Your task to perform on an android device: turn pop-ups off in chrome Image 0: 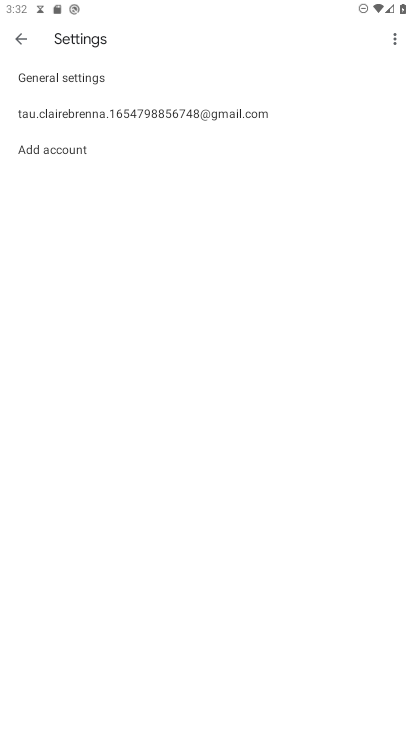
Step 0: press home button
Your task to perform on an android device: turn pop-ups off in chrome Image 1: 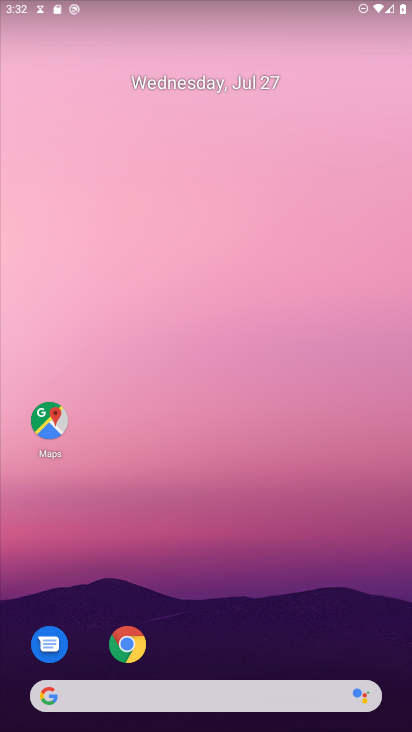
Step 1: click (138, 640)
Your task to perform on an android device: turn pop-ups off in chrome Image 2: 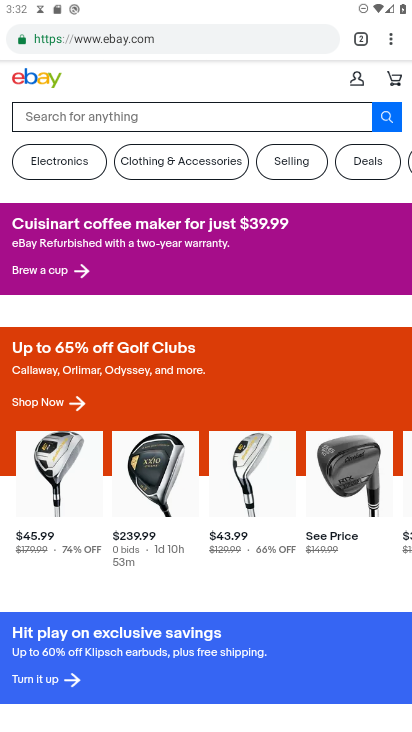
Step 2: click (392, 38)
Your task to perform on an android device: turn pop-ups off in chrome Image 3: 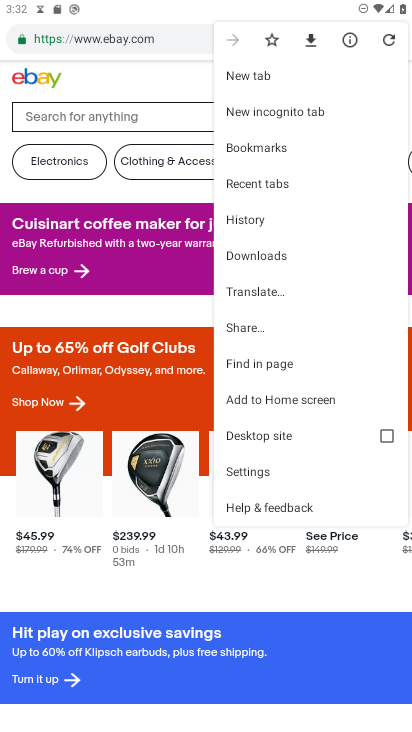
Step 3: click (267, 479)
Your task to perform on an android device: turn pop-ups off in chrome Image 4: 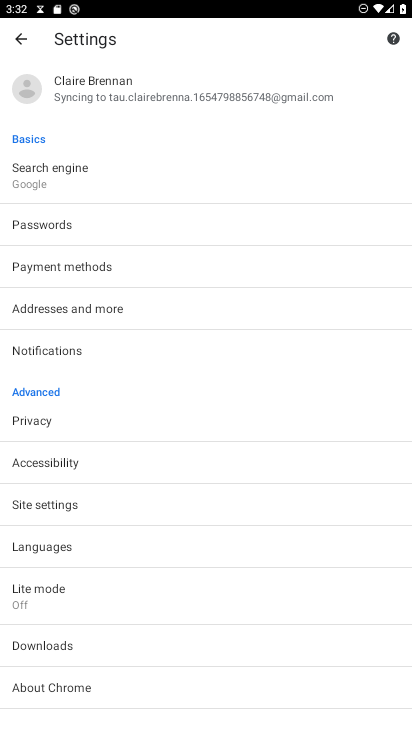
Step 4: click (73, 503)
Your task to perform on an android device: turn pop-ups off in chrome Image 5: 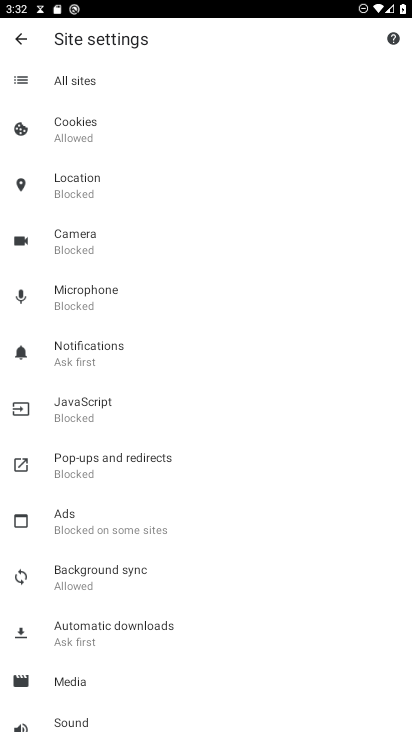
Step 5: click (104, 468)
Your task to perform on an android device: turn pop-ups off in chrome Image 6: 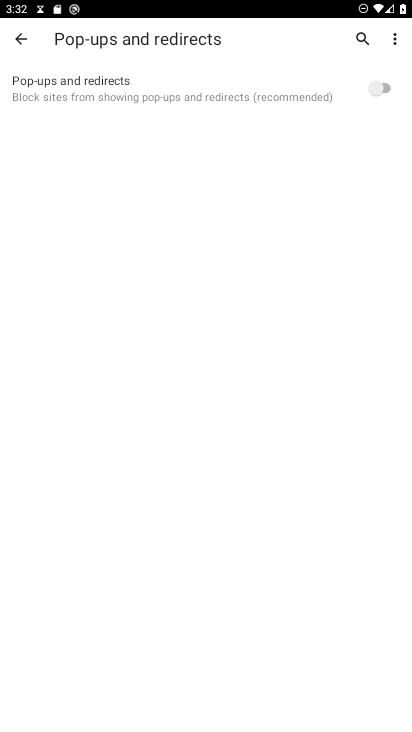
Step 6: task complete